Your task to perform on an android device: Check the news Image 0: 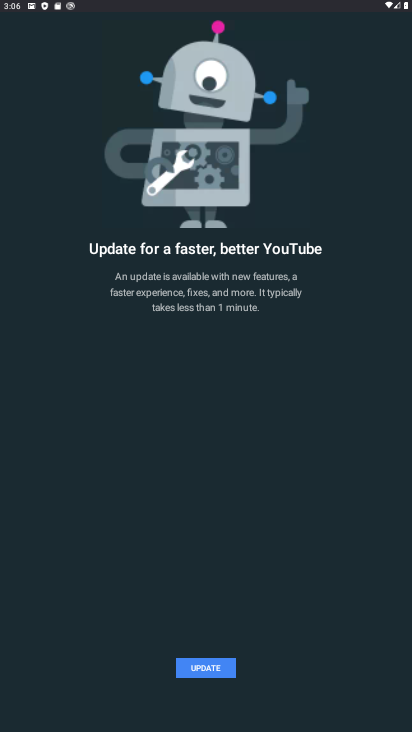
Step 0: press home button
Your task to perform on an android device: Check the news Image 1: 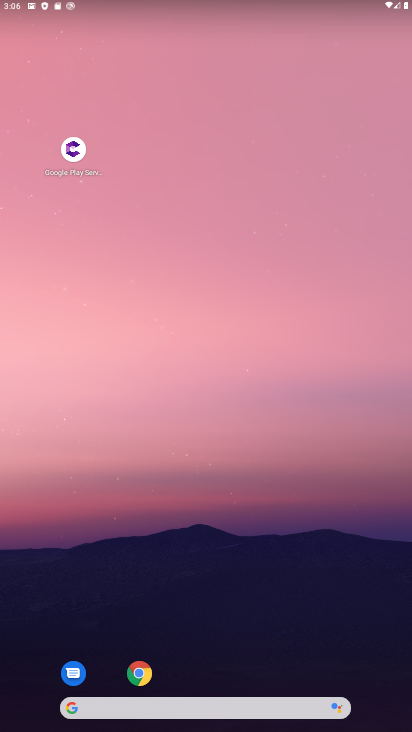
Step 1: drag from (313, 627) to (340, 85)
Your task to perform on an android device: Check the news Image 2: 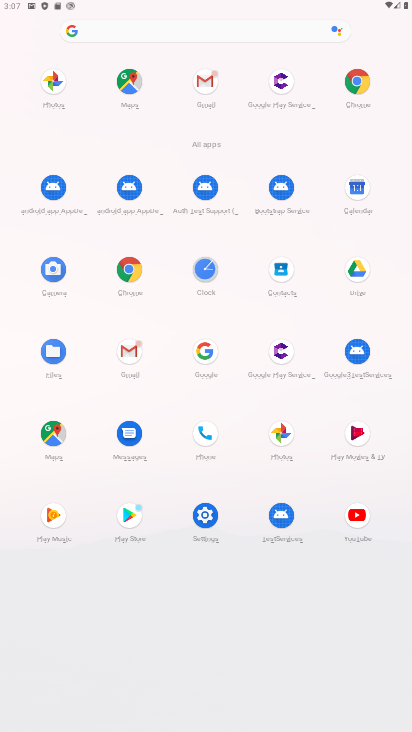
Step 2: click (123, 270)
Your task to perform on an android device: Check the news Image 3: 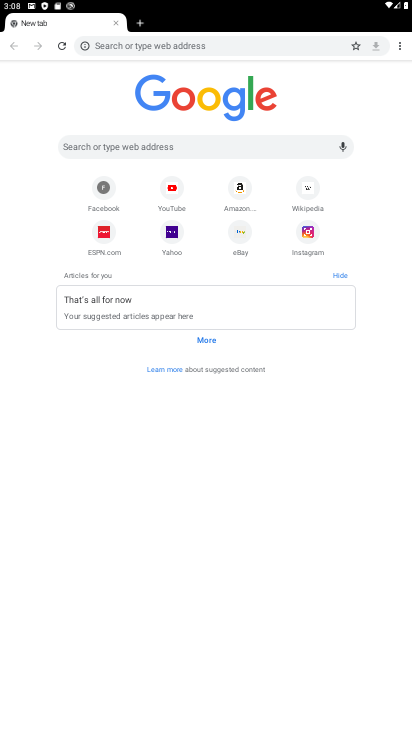
Step 3: click (155, 45)
Your task to perform on an android device: Check the news Image 4: 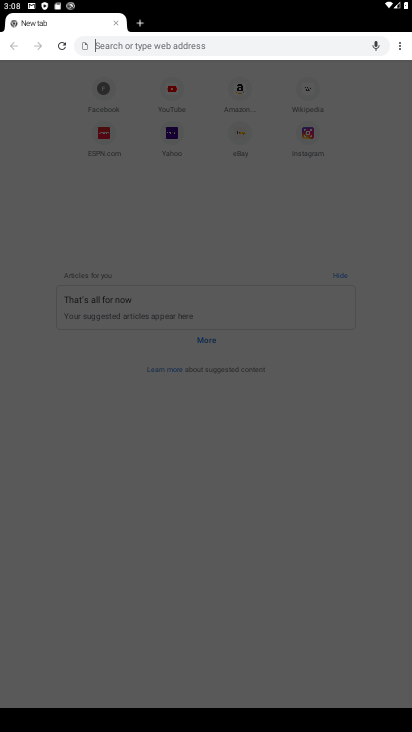
Step 4: type "Check the news"
Your task to perform on an android device: Check the news Image 5: 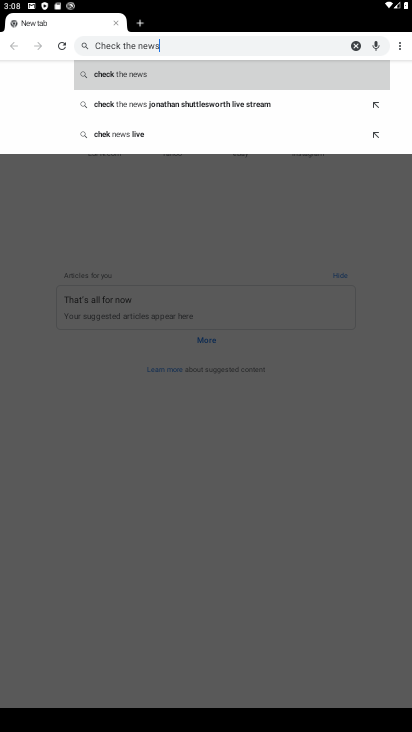
Step 5: click (112, 70)
Your task to perform on an android device: Check the news Image 6: 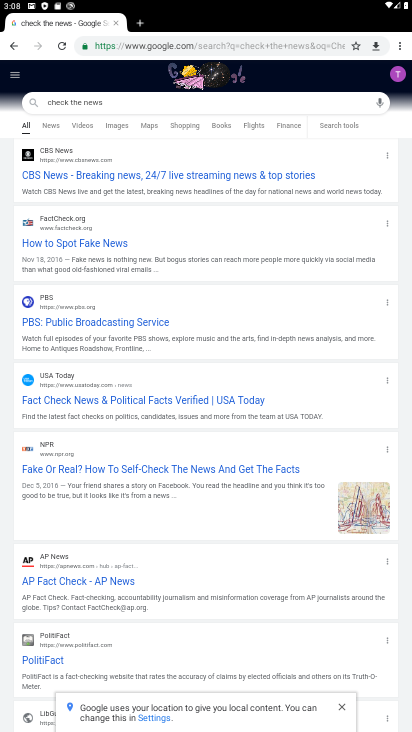
Step 6: task complete